Your task to perform on an android device: turn on sleep mode Image 0: 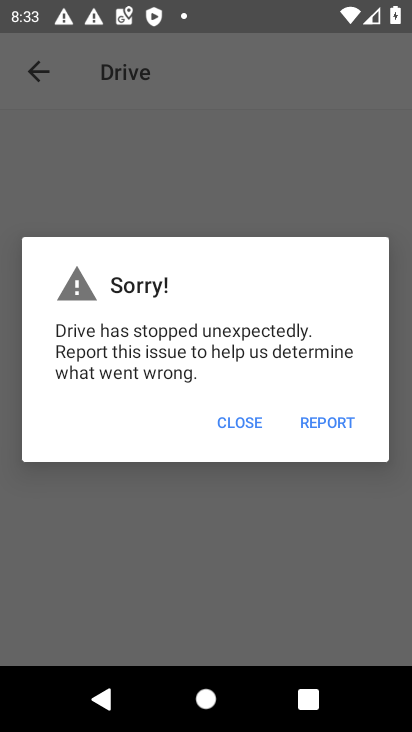
Step 0: press home button
Your task to perform on an android device: turn on sleep mode Image 1: 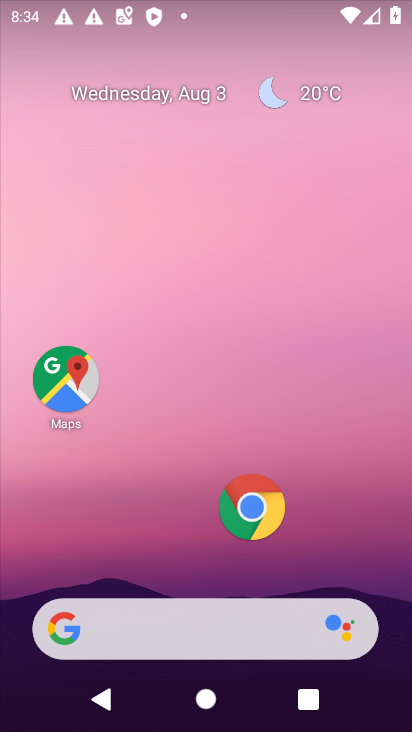
Step 1: task complete